Your task to perform on an android device: turn off location history Image 0: 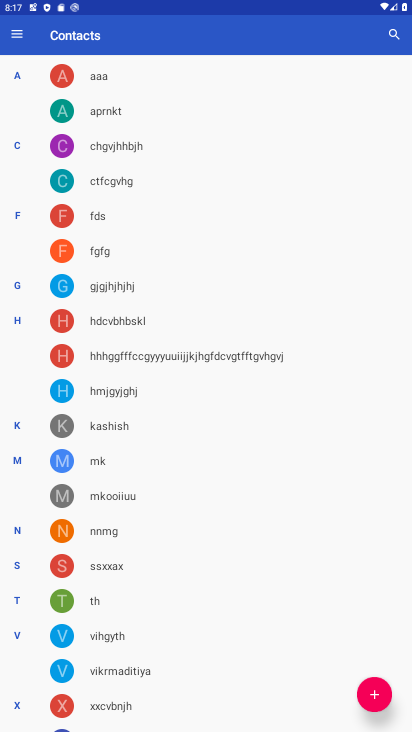
Step 0: press home button
Your task to perform on an android device: turn off location history Image 1: 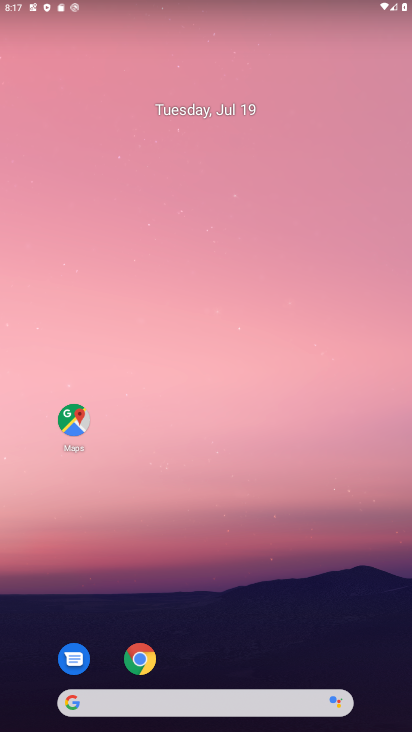
Step 1: drag from (223, 687) to (195, 200)
Your task to perform on an android device: turn off location history Image 2: 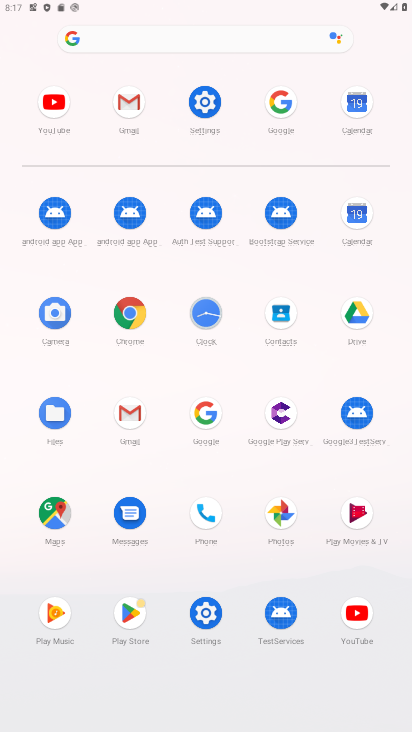
Step 2: click (202, 95)
Your task to perform on an android device: turn off location history Image 3: 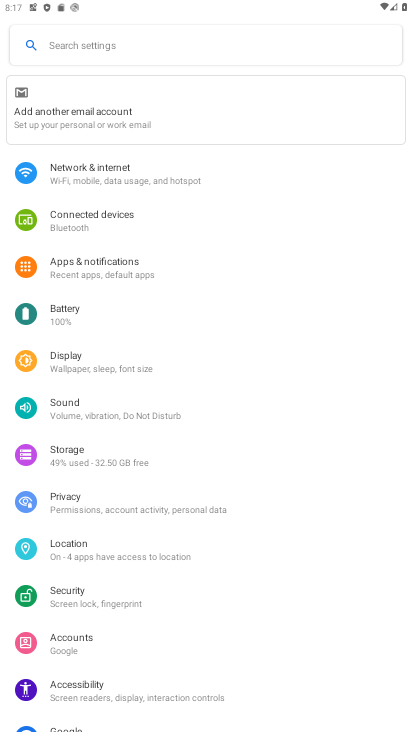
Step 3: click (74, 549)
Your task to perform on an android device: turn off location history Image 4: 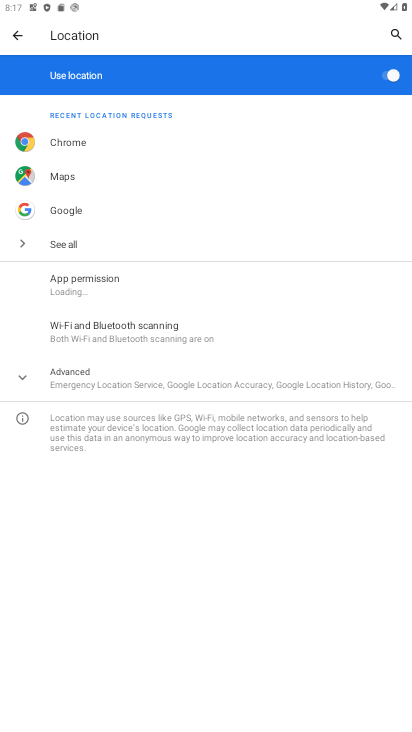
Step 4: click (57, 382)
Your task to perform on an android device: turn off location history Image 5: 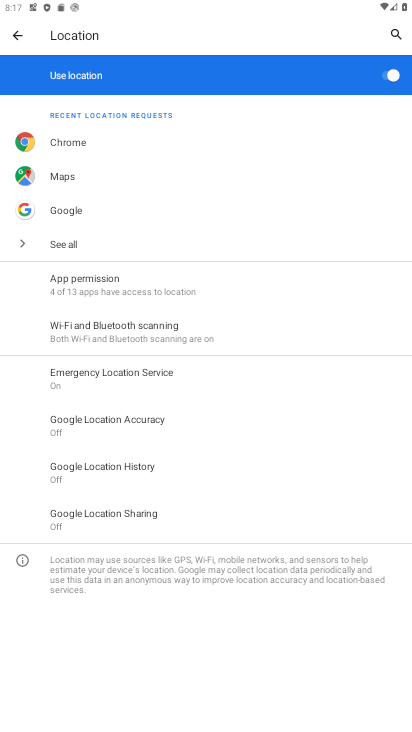
Step 5: click (96, 471)
Your task to perform on an android device: turn off location history Image 6: 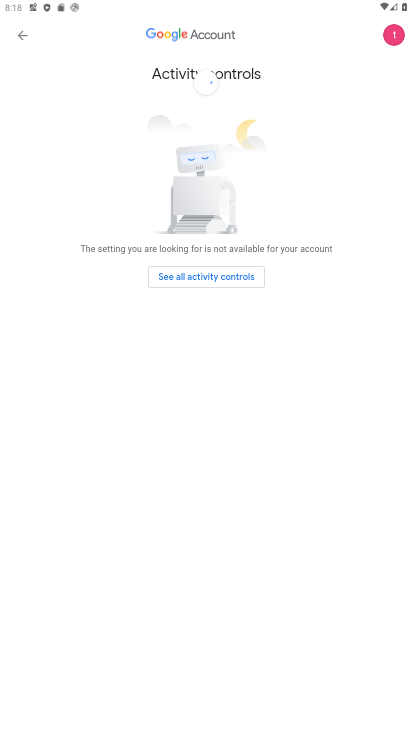
Step 6: click (218, 283)
Your task to perform on an android device: turn off location history Image 7: 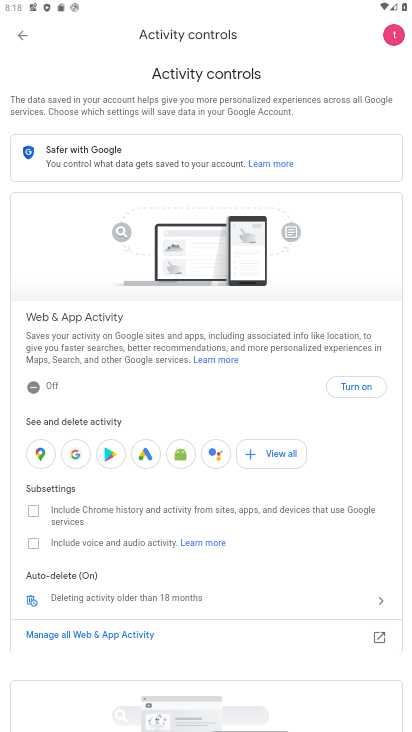
Step 7: task complete